Your task to perform on an android device: How much does a 2 bedroom apartment rent for in Los Angeles? Image 0: 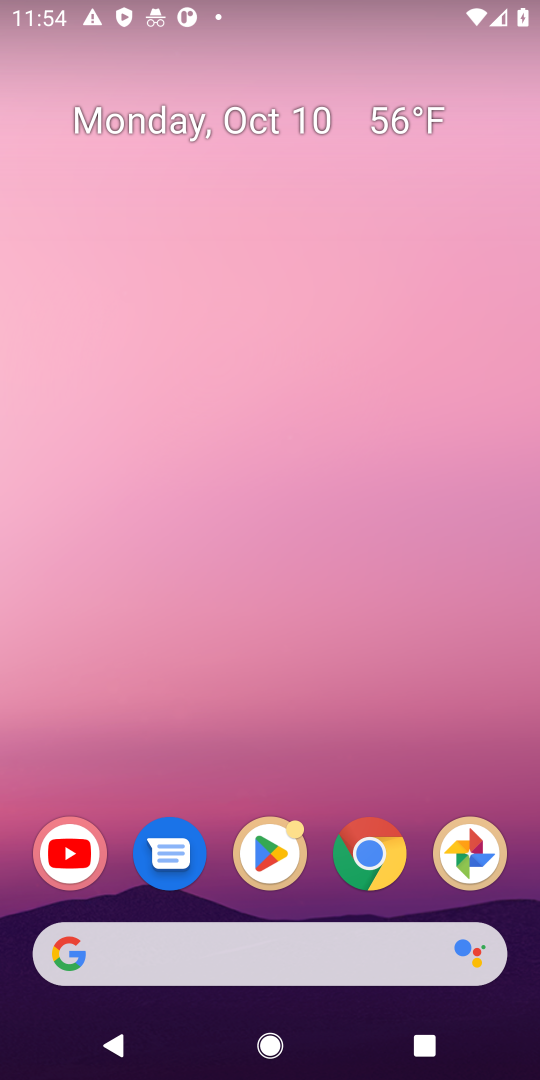
Step 0: drag from (304, 775) to (226, 3)
Your task to perform on an android device: How much does a 2 bedroom apartment rent for in Los Angeles? Image 1: 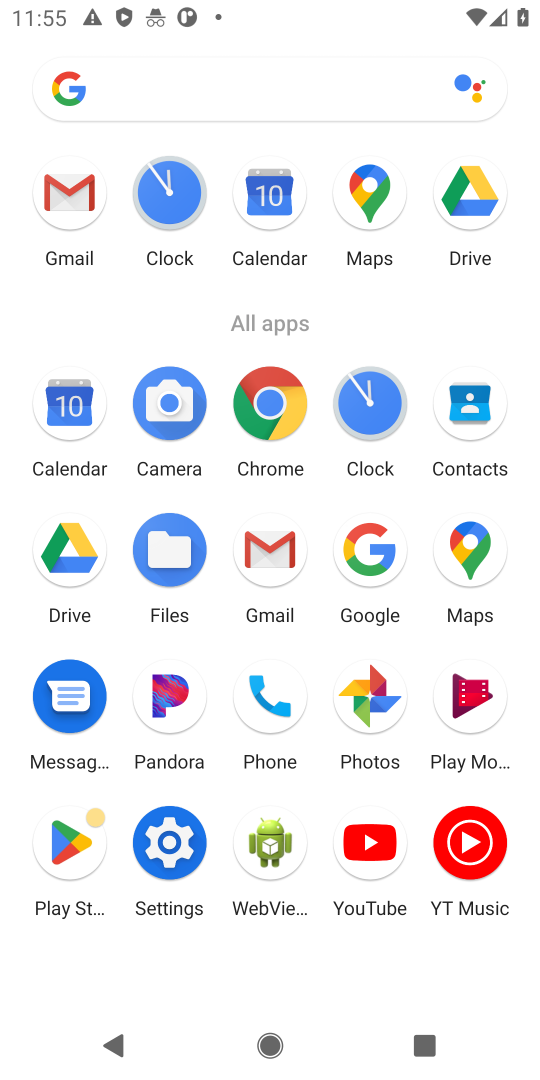
Step 1: click (256, 381)
Your task to perform on an android device: How much does a 2 bedroom apartment rent for in Los Angeles? Image 2: 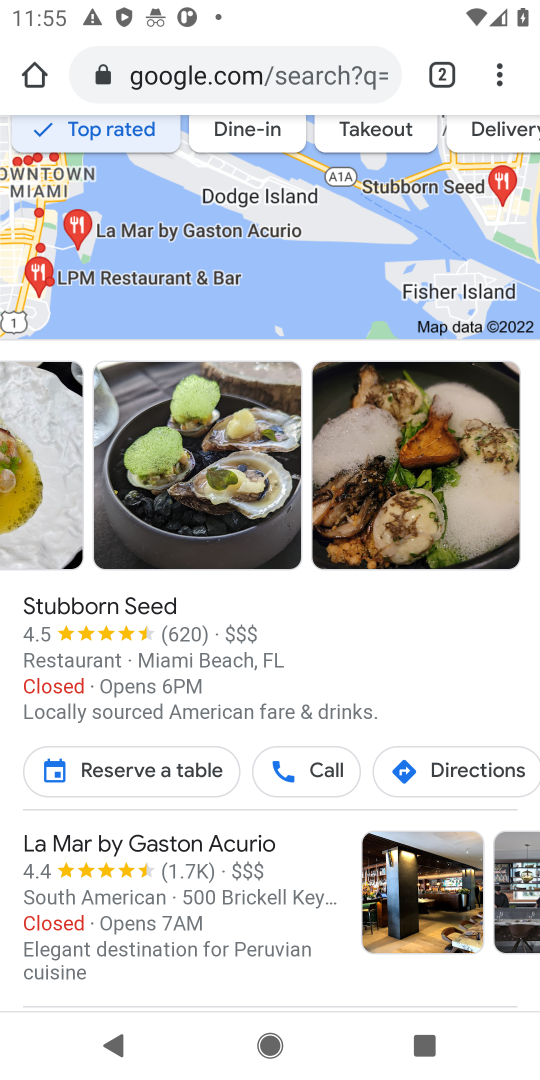
Step 2: click (304, 73)
Your task to perform on an android device: How much does a 2 bedroom apartment rent for in Los Angeles? Image 3: 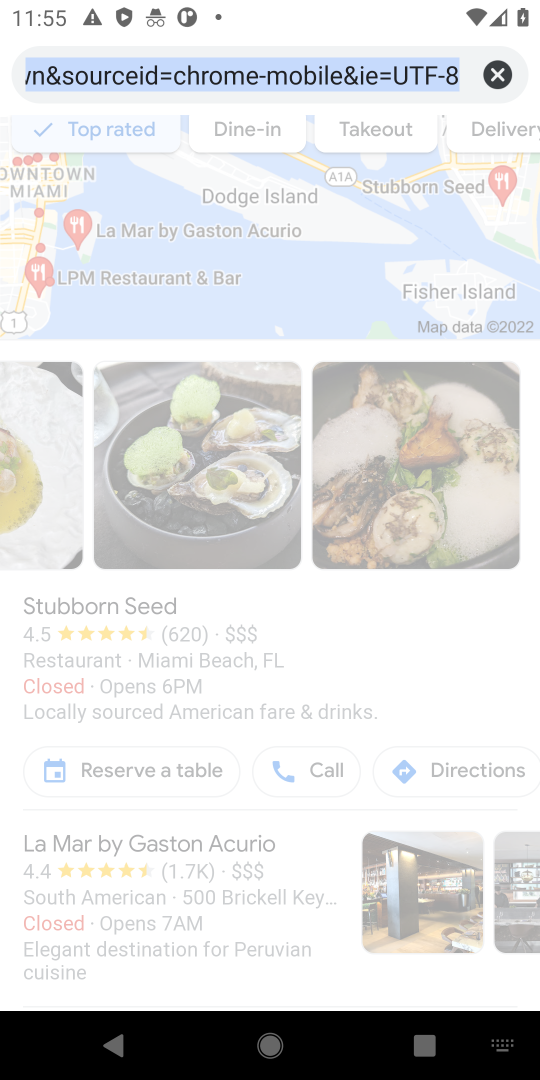
Step 3: click (502, 71)
Your task to perform on an android device: How much does a 2 bedroom apartment rent for in Los Angeles? Image 4: 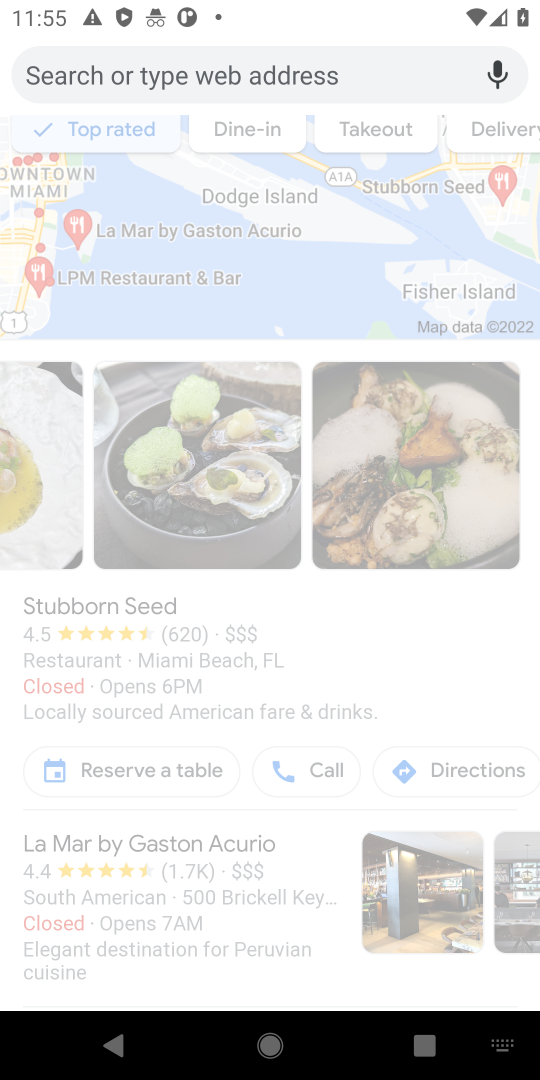
Step 4: type "How much does a 2 bedroom apartment rent for in Los Angeles?"
Your task to perform on an android device: How much does a 2 bedroom apartment rent for in Los Angeles? Image 5: 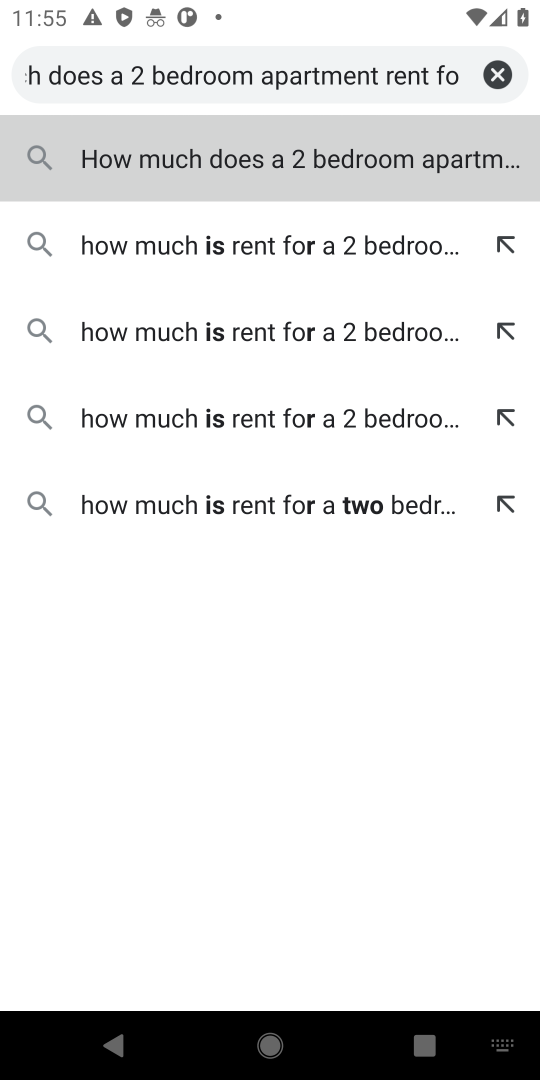
Step 5: click (388, 155)
Your task to perform on an android device: How much does a 2 bedroom apartment rent for in Los Angeles? Image 6: 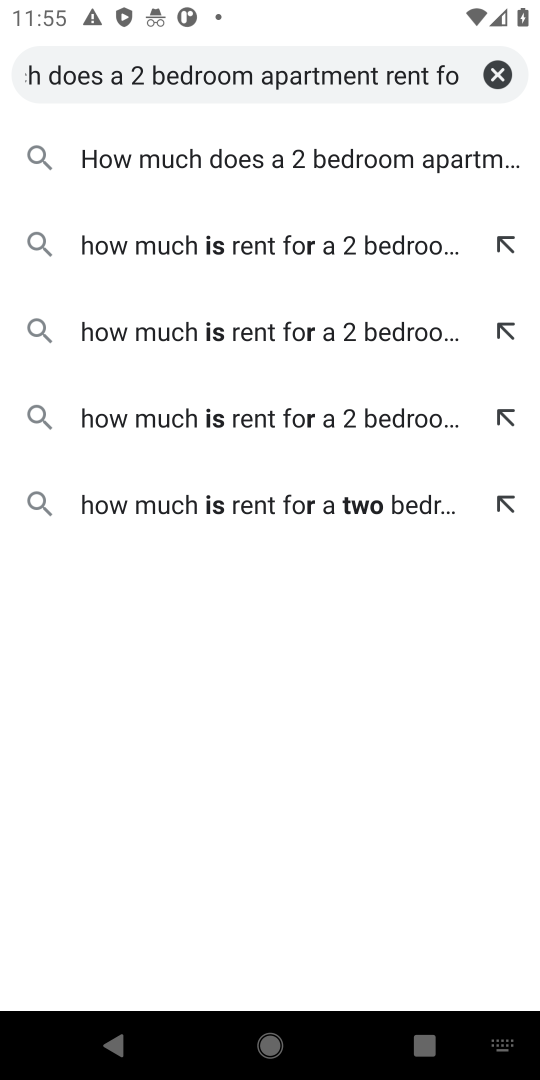
Step 6: click (388, 155)
Your task to perform on an android device: How much does a 2 bedroom apartment rent for in Los Angeles? Image 7: 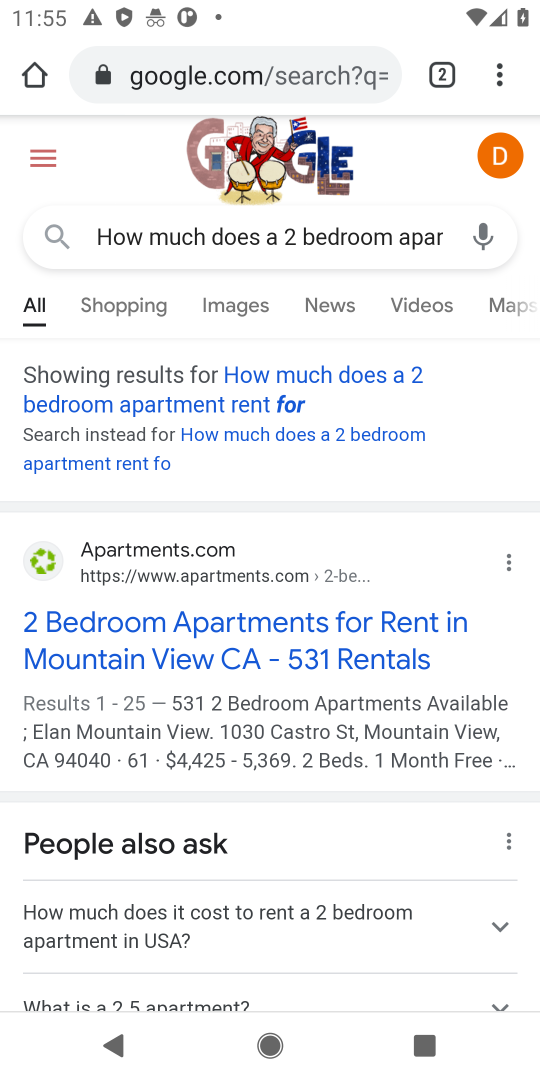
Step 7: drag from (289, 764) to (351, 424)
Your task to perform on an android device: How much does a 2 bedroom apartment rent for in Los Angeles? Image 8: 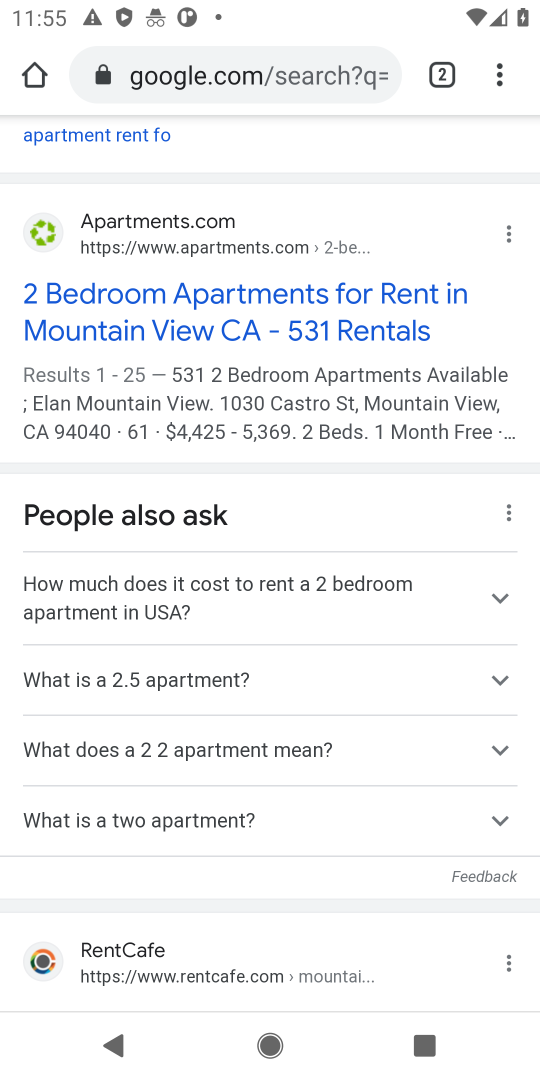
Step 8: click (145, 313)
Your task to perform on an android device: How much does a 2 bedroom apartment rent for in Los Angeles? Image 9: 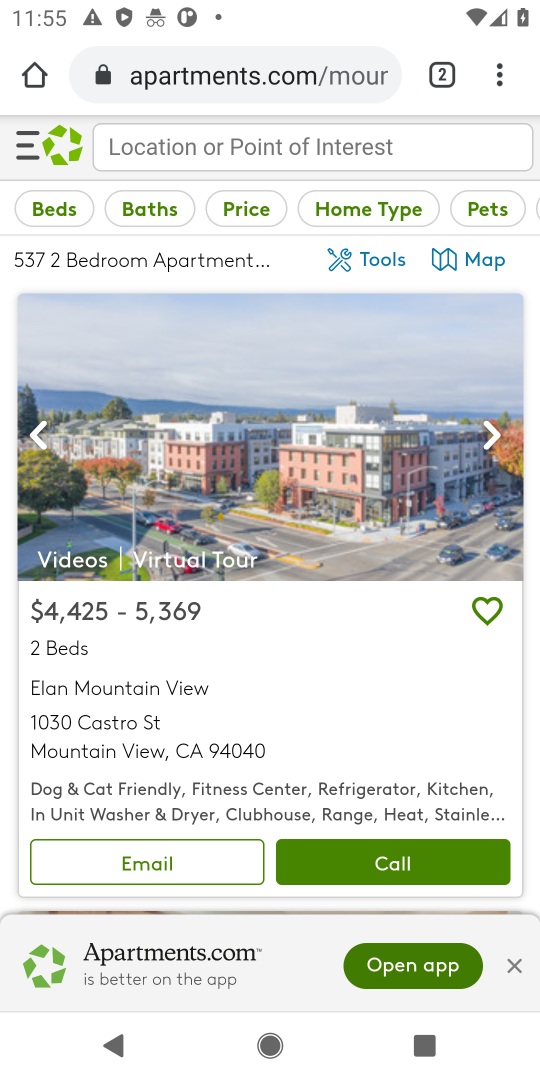
Step 9: drag from (464, 549) to (11, 508)
Your task to perform on an android device: How much does a 2 bedroom apartment rent for in Los Angeles? Image 10: 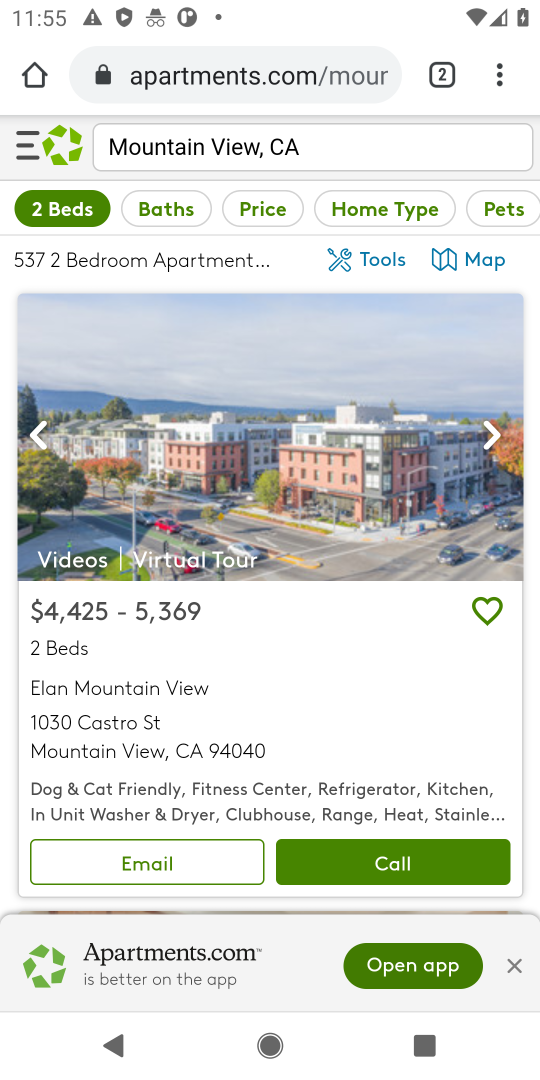
Step 10: drag from (431, 665) to (431, 38)
Your task to perform on an android device: How much does a 2 bedroom apartment rent for in Los Angeles? Image 11: 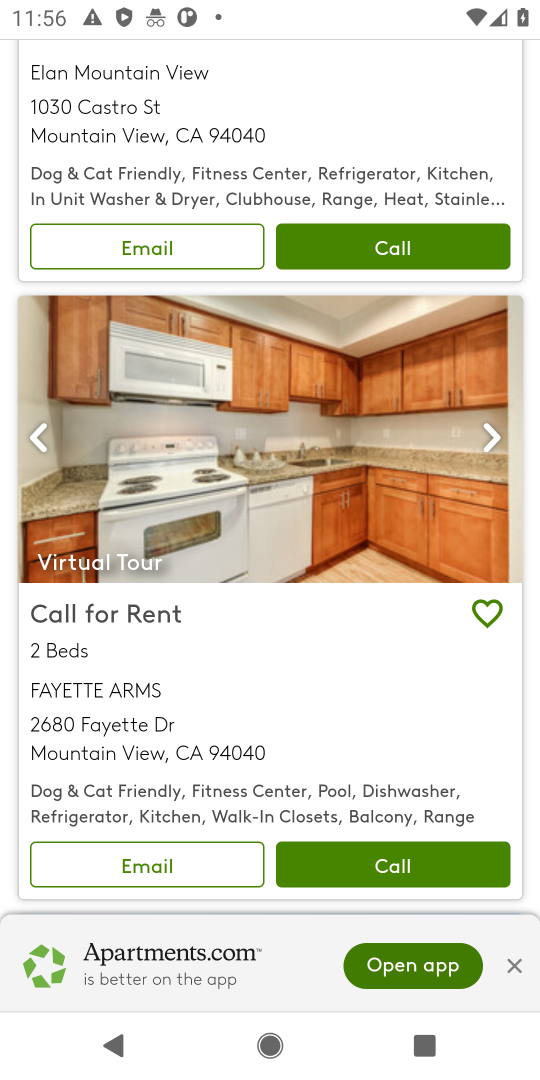
Step 11: drag from (327, 252) to (182, 729)
Your task to perform on an android device: How much does a 2 bedroom apartment rent for in Los Angeles? Image 12: 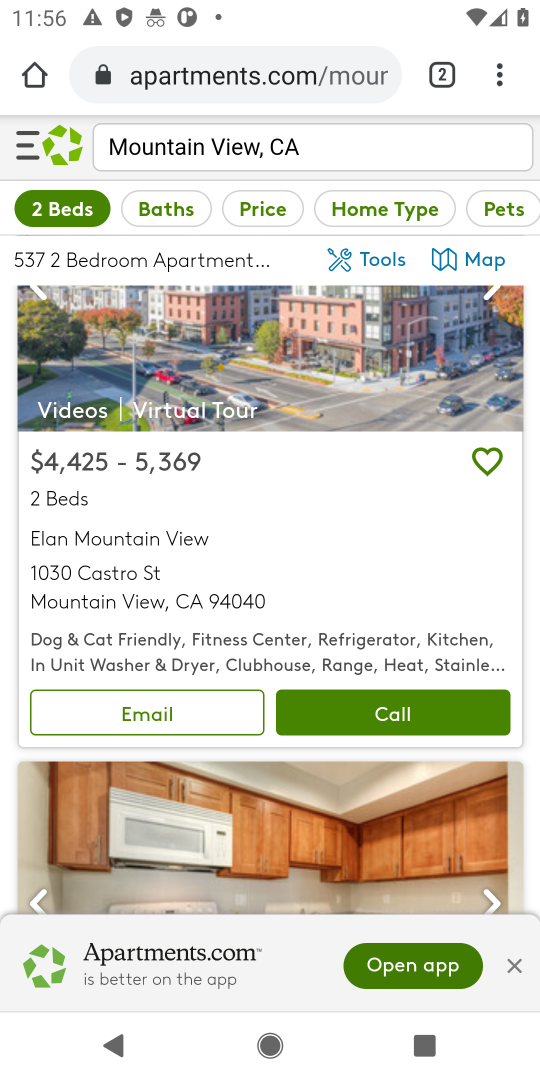
Step 12: drag from (187, 853) to (295, 259)
Your task to perform on an android device: How much does a 2 bedroom apartment rent for in Los Angeles? Image 13: 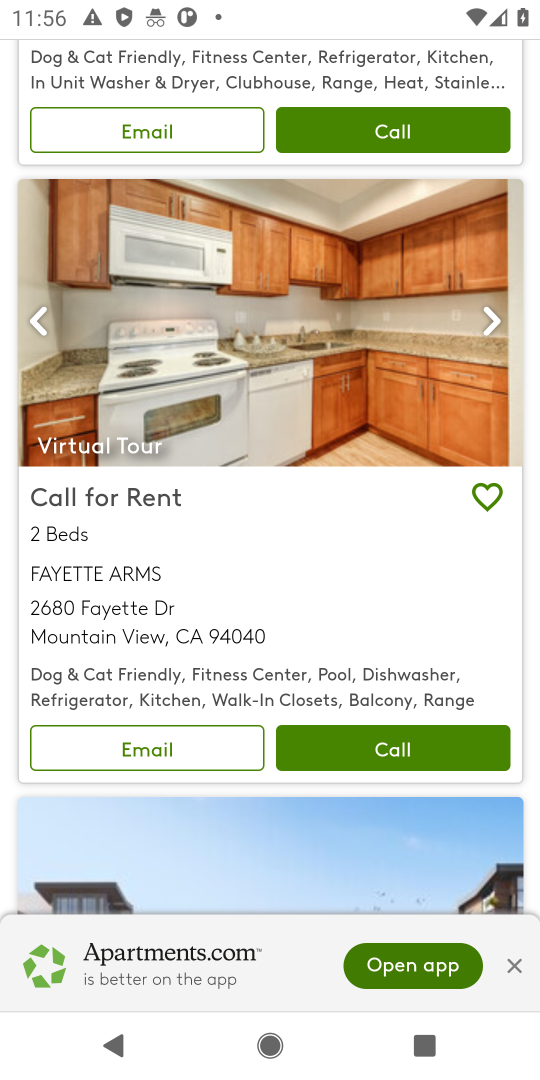
Step 13: drag from (284, 629) to (342, 156)
Your task to perform on an android device: How much does a 2 bedroom apartment rent for in Los Angeles? Image 14: 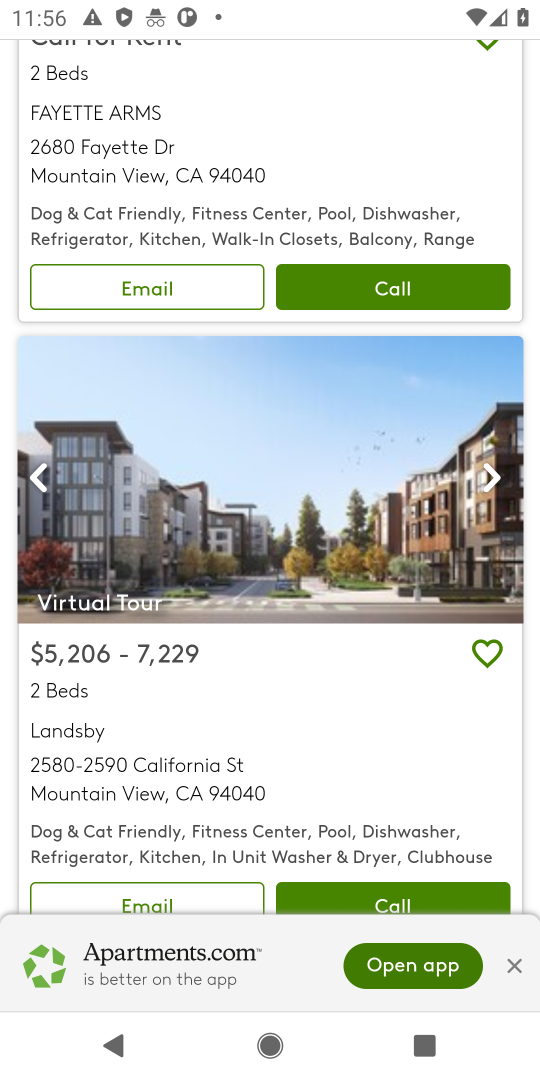
Step 14: drag from (259, 715) to (256, 630)
Your task to perform on an android device: How much does a 2 bedroom apartment rent for in Los Angeles? Image 15: 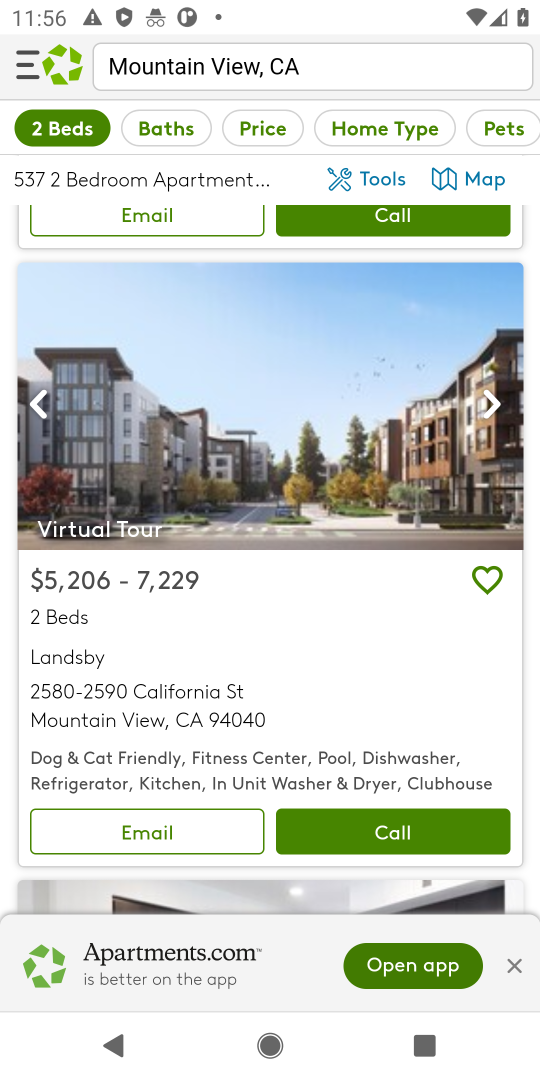
Step 15: click (486, 418)
Your task to perform on an android device: How much does a 2 bedroom apartment rent for in Los Angeles? Image 16: 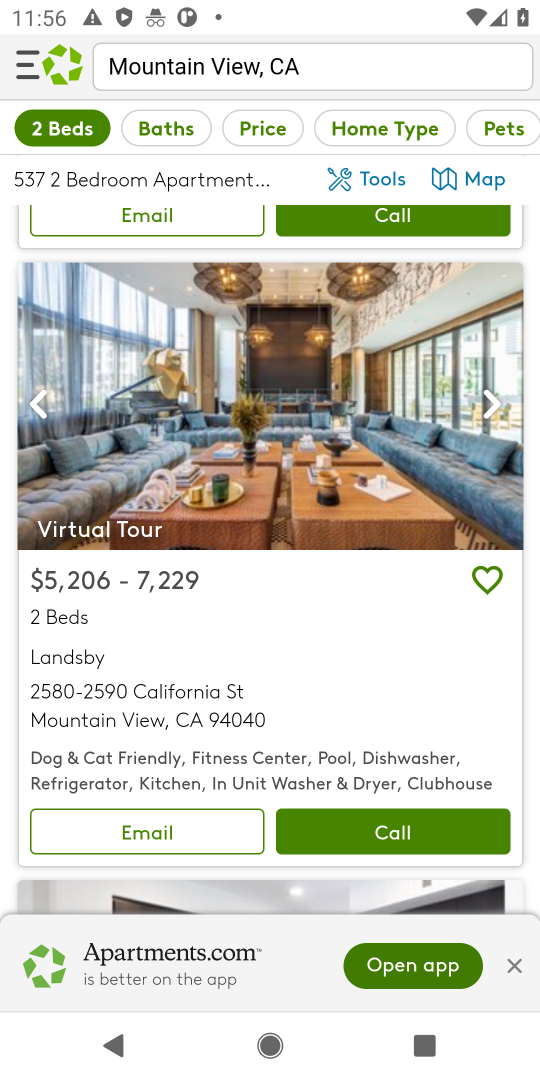
Step 16: click (494, 418)
Your task to perform on an android device: How much does a 2 bedroom apartment rent for in Los Angeles? Image 17: 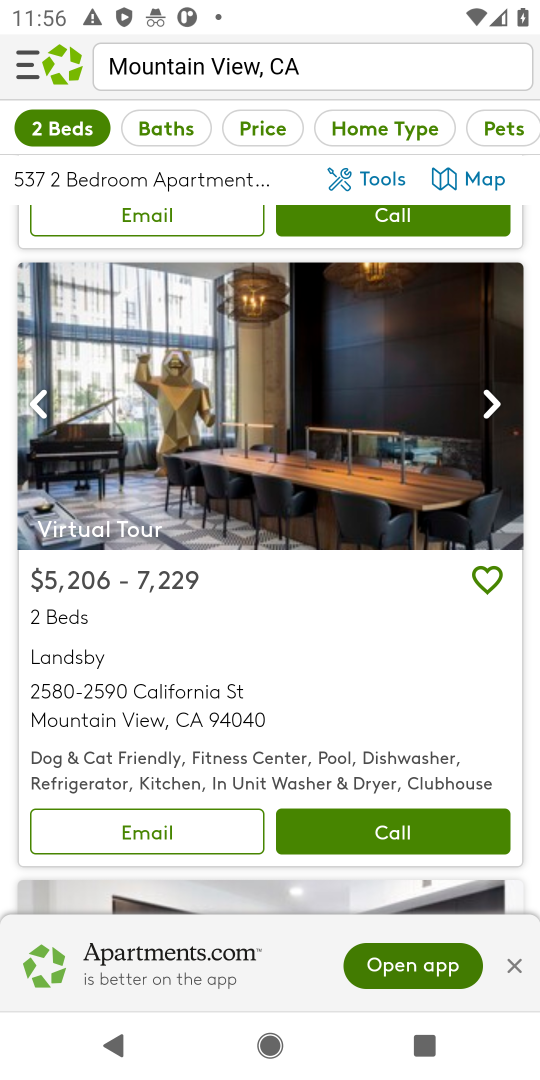
Step 17: click (494, 418)
Your task to perform on an android device: How much does a 2 bedroom apartment rent for in Los Angeles? Image 18: 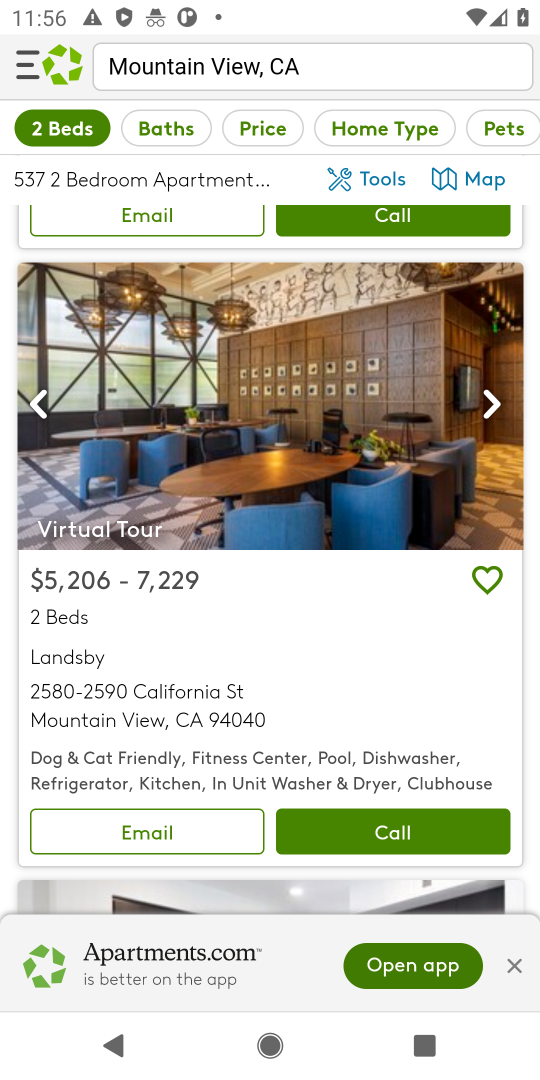
Step 18: click (494, 418)
Your task to perform on an android device: How much does a 2 bedroom apartment rent for in Los Angeles? Image 19: 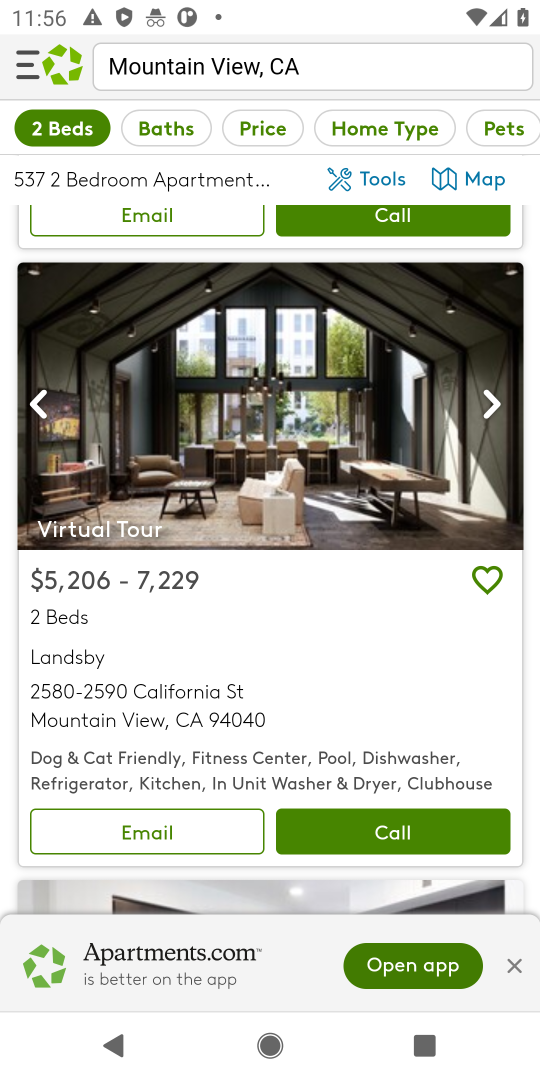
Step 19: task complete